Your task to perform on an android device: Toggle the flashlight Image 0: 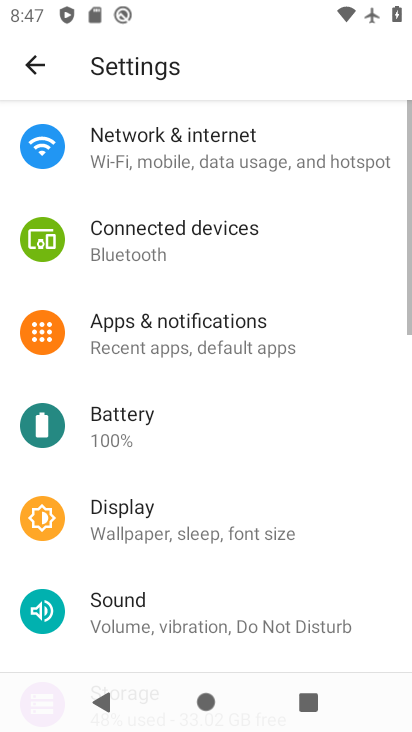
Step 0: press home button
Your task to perform on an android device: Toggle the flashlight Image 1: 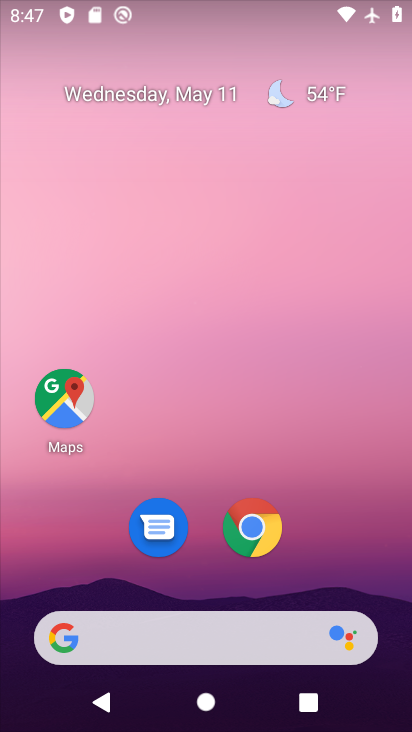
Step 1: drag from (304, 547) to (325, 141)
Your task to perform on an android device: Toggle the flashlight Image 2: 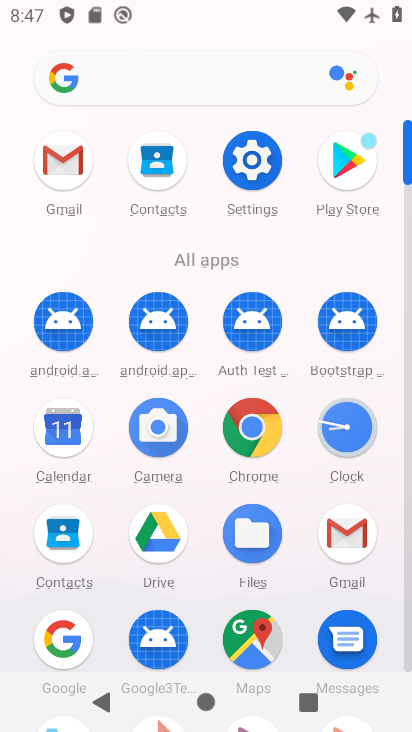
Step 2: click (247, 161)
Your task to perform on an android device: Toggle the flashlight Image 3: 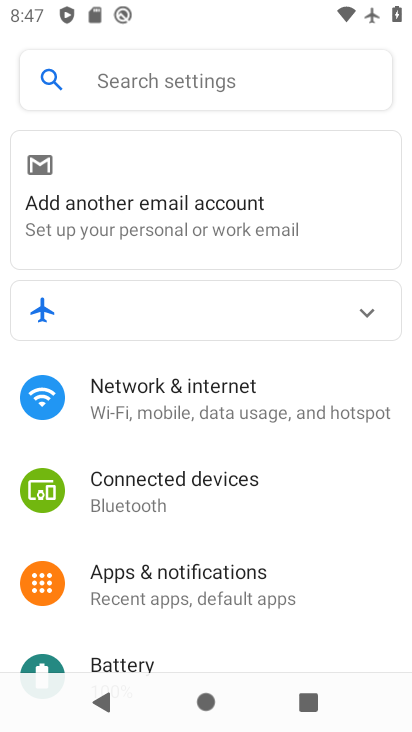
Step 3: click (110, 75)
Your task to perform on an android device: Toggle the flashlight Image 4: 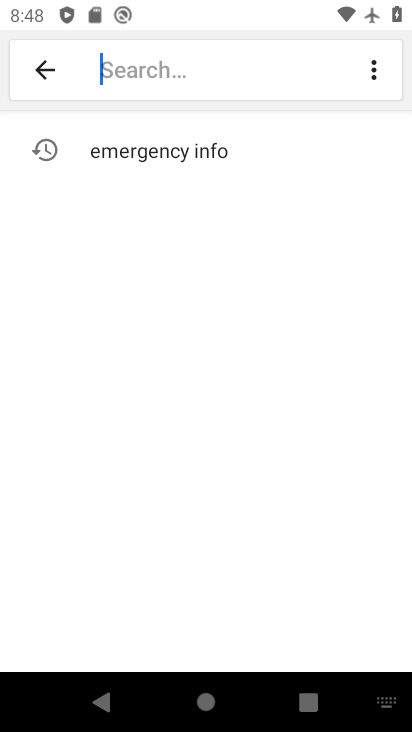
Step 4: type "flashlight"
Your task to perform on an android device: Toggle the flashlight Image 5: 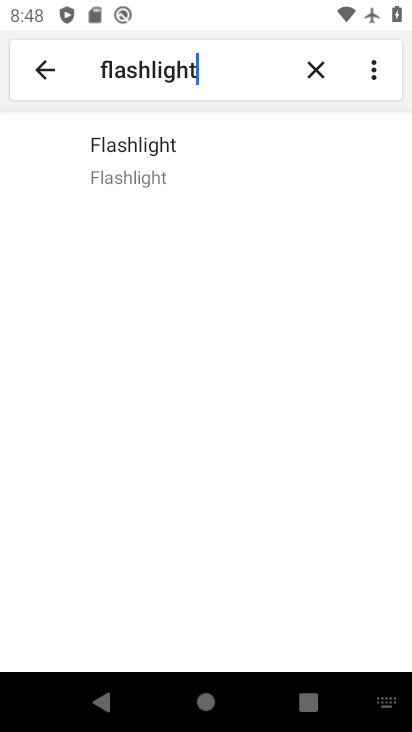
Step 5: click (192, 138)
Your task to perform on an android device: Toggle the flashlight Image 6: 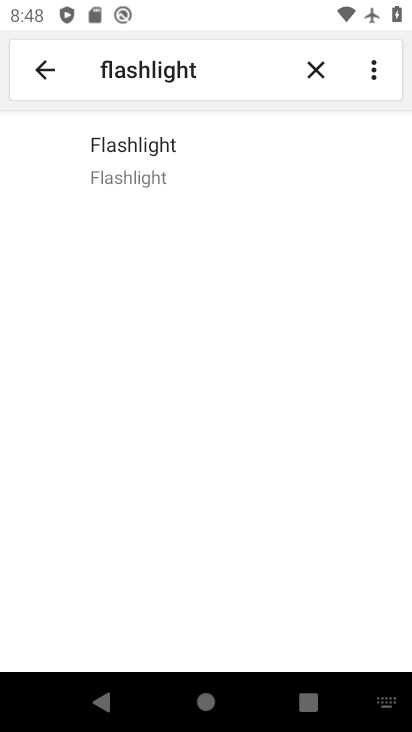
Step 6: drag from (112, 102) to (125, 174)
Your task to perform on an android device: Toggle the flashlight Image 7: 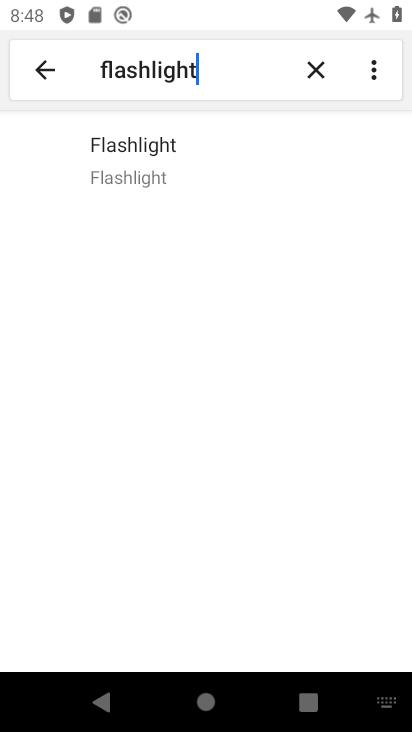
Step 7: click (124, 173)
Your task to perform on an android device: Toggle the flashlight Image 8: 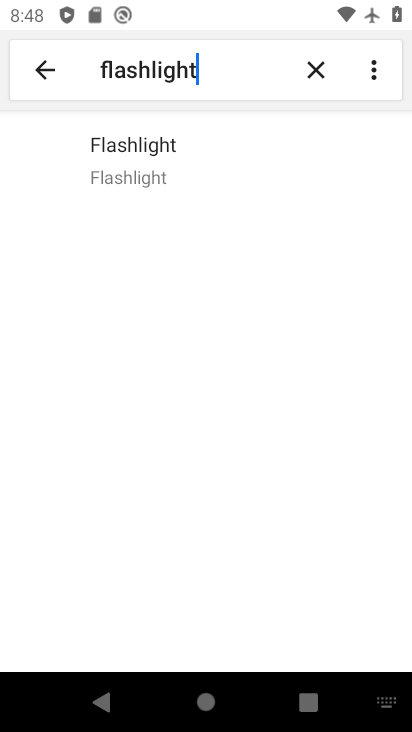
Step 8: task complete